Your task to perform on an android device: Open the calendar app, open the side menu, and click the "Day" option Image 0: 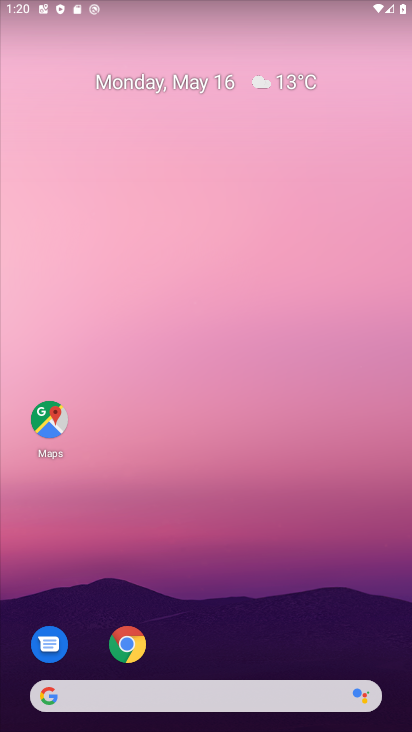
Step 0: drag from (211, 543) to (229, 173)
Your task to perform on an android device: Open the calendar app, open the side menu, and click the "Day" option Image 1: 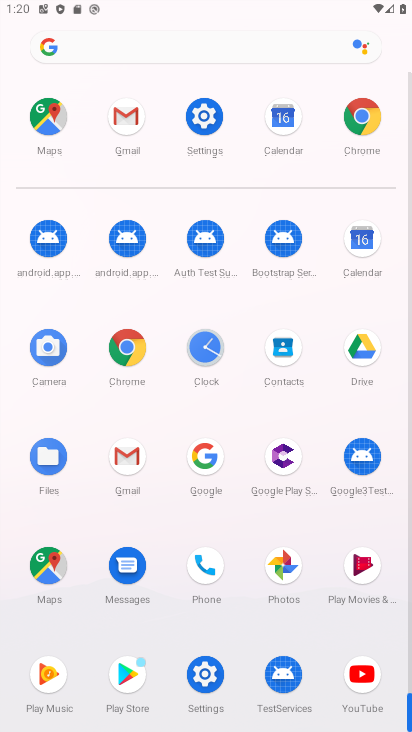
Step 1: click (371, 247)
Your task to perform on an android device: Open the calendar app, open the side menu, and click the "Day" option Image 2: 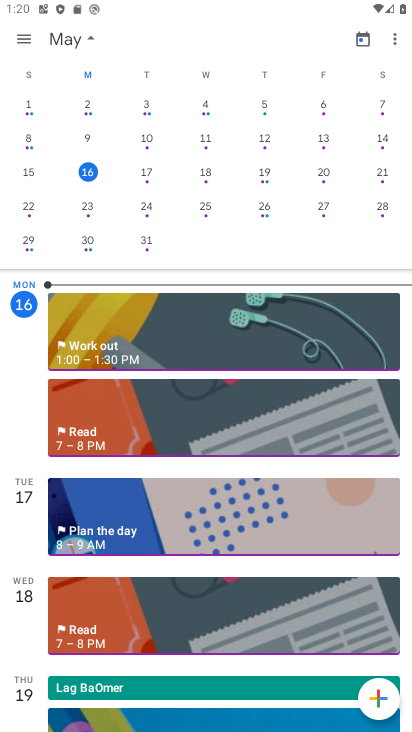
Step 2: click (32, 39)
Your task to perform on an android device: Open the calendar app, open the side menu, and click the "Day" option Image 3: 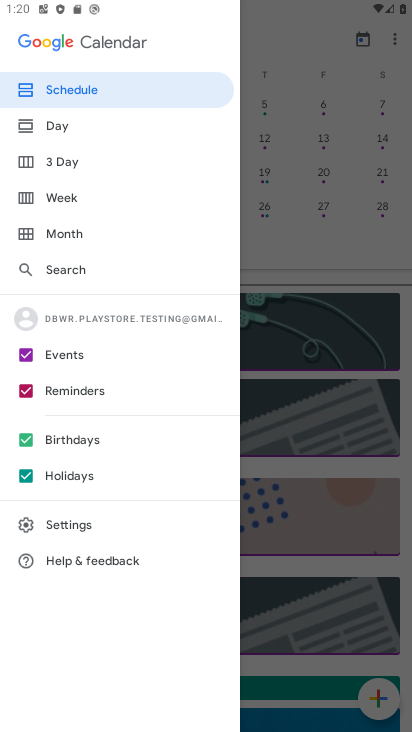
Step 3: click (83, 125)
Your task to perform on an android device: Open the calendar app, open the side menu, and click the "Day" option Image 4: 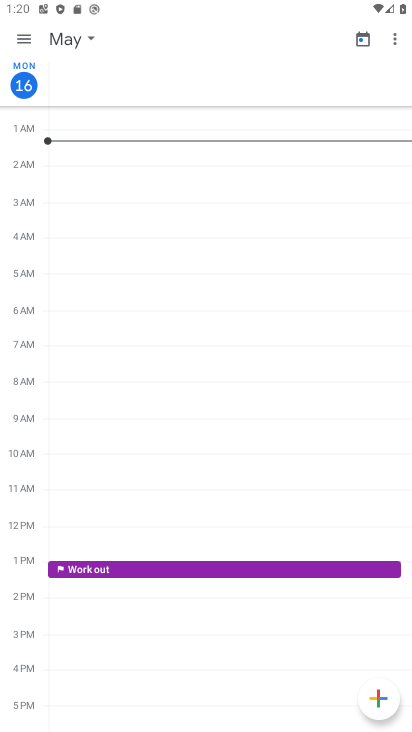
Step 4: task complete